Your task to perform on an android device: Open display settings Image 0: 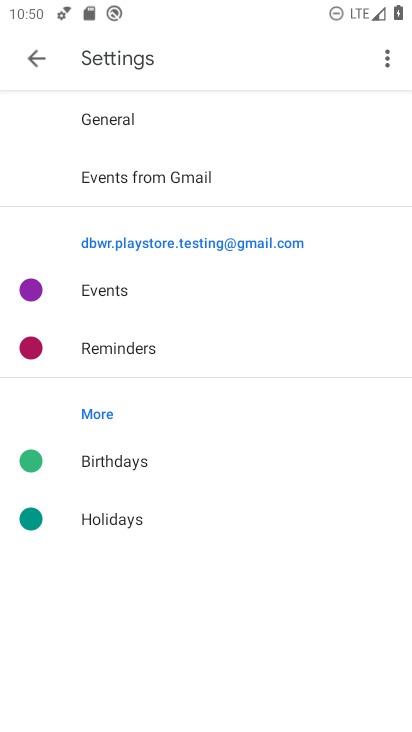
Step 0: press home button
Your task to perform on an android device: Open display settings Image 1: 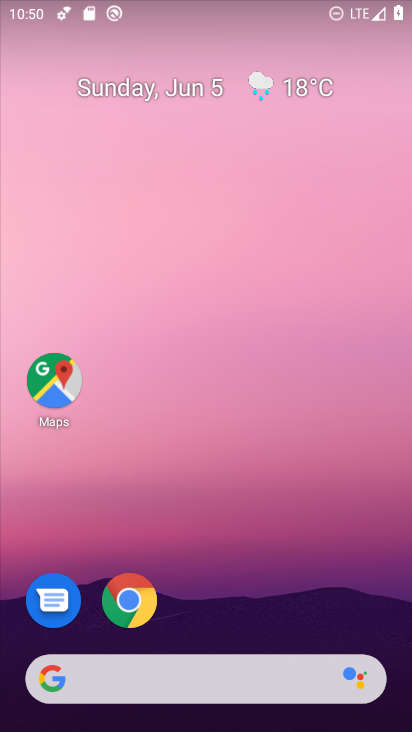
Step 1: drag from (213, 639) to (168, 97)
Your task to perform on an android device: Open display settings Image 2: 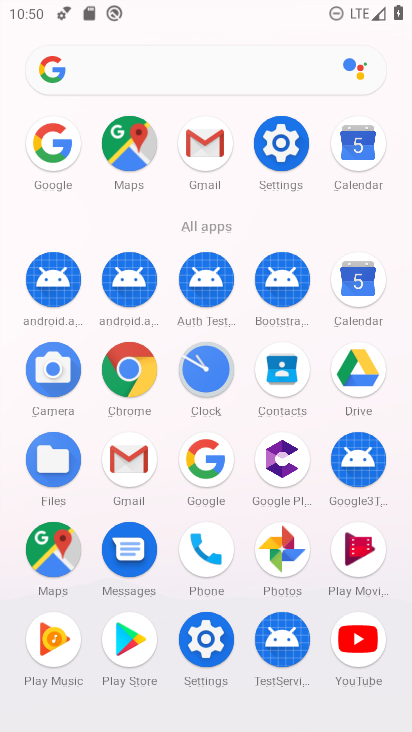
Step 2: click (269, 124)
Your task to perform on an android device: Open display settings Image 3: 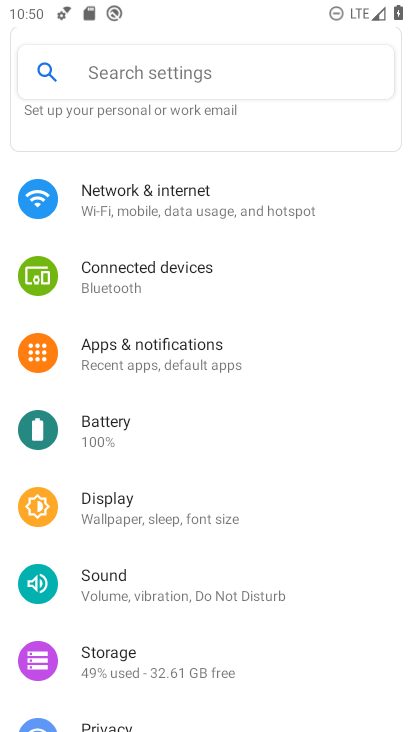
Step 3: click (190, 515)
Your task to perform on an android device: Open display settings Image 4: 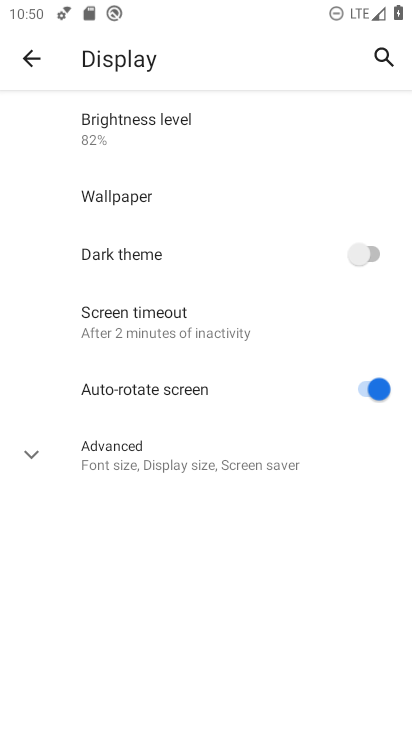
Step 4: task complete